Your task to perform on an android device: change text size in settings app Image 0: 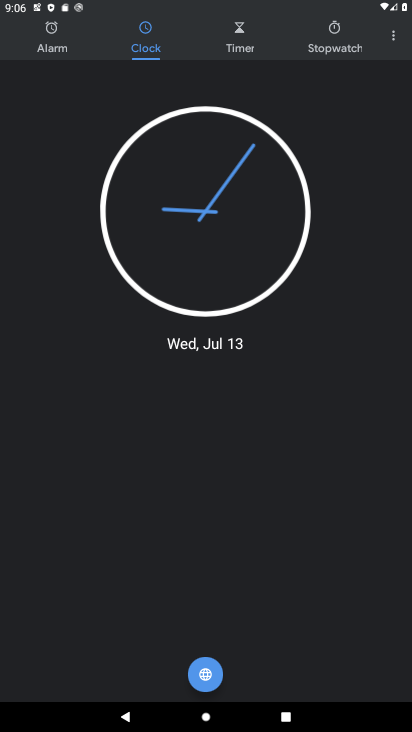
Step 0: press home button
Your task to perform on an android device: change text size in settings app Image 1: 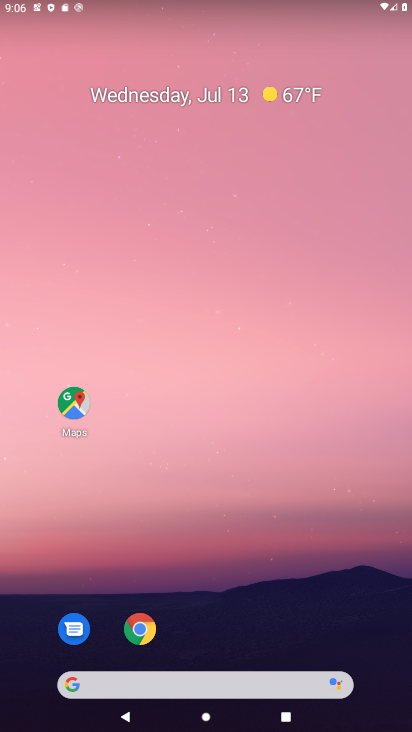
Step 1: drag from (234, 598) to (340, 7)
Your task to perform on an android device: change text size in settings app Image 2: 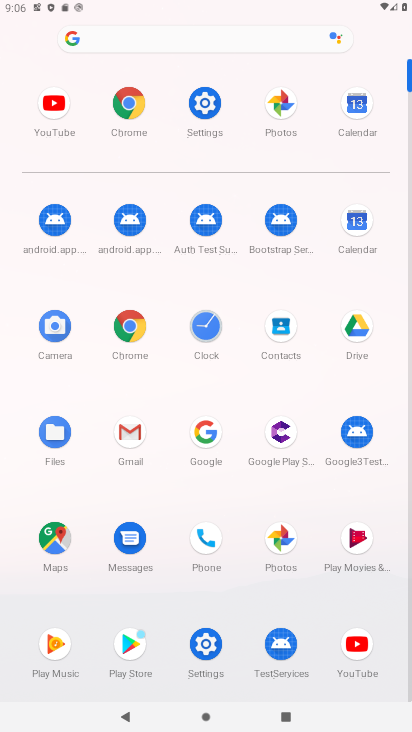
Step 2: click (212, 654)
Your task to perform on an android device: change text size in settings app Image 3: 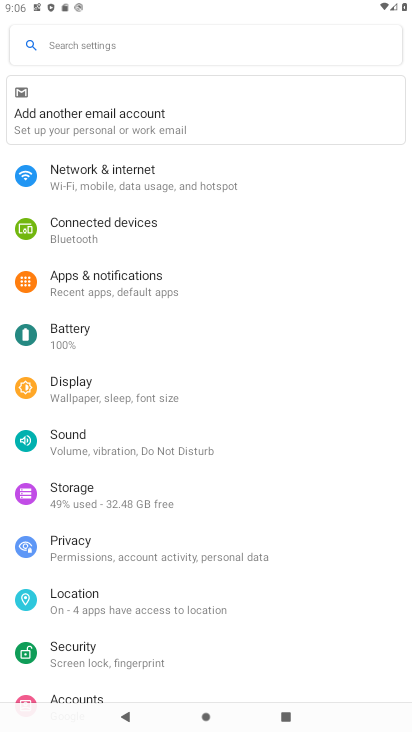
Step 3: click (97, 392)
Your task to perform on an android device: change text size in settings app Image 4: 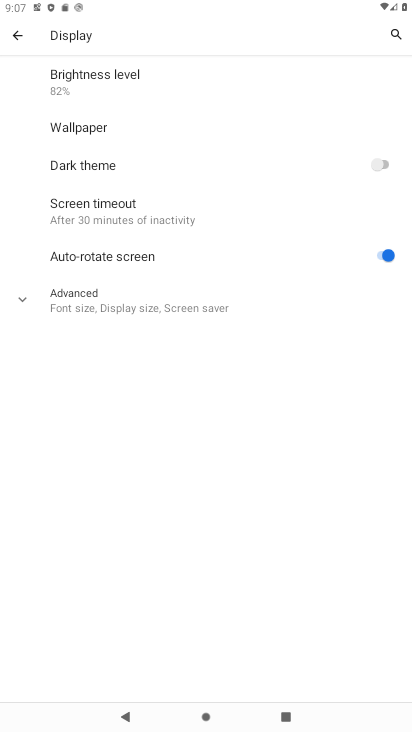
Step 4: click (91, 300)
Your task to perform on an android device: change text size in settings app Image 5: 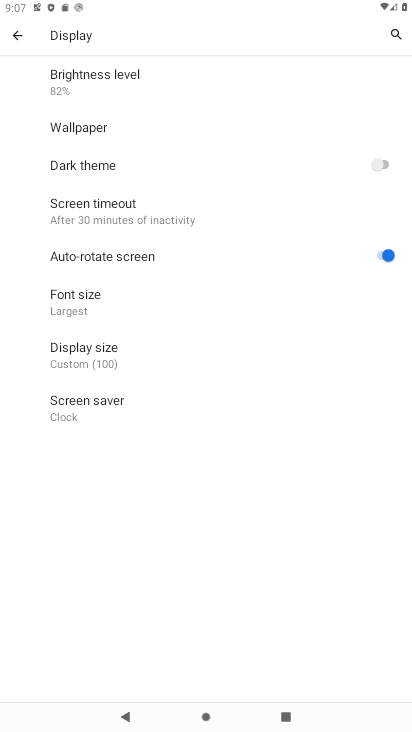
Step 5: click (93, 298)
Your task to perform on an android device: change text size in settings app Image 6: 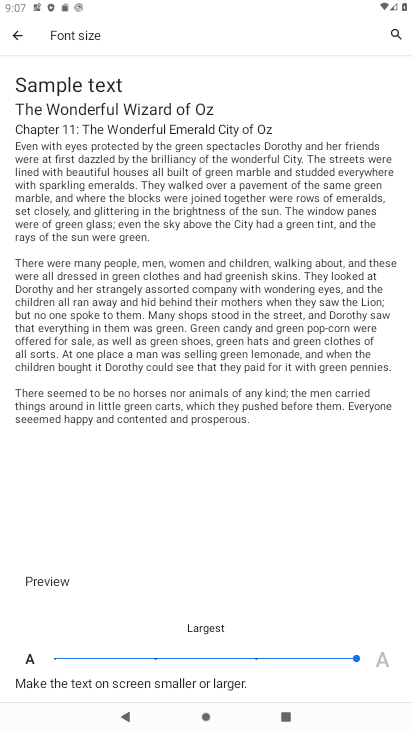
Step 6: click (307, 657)
Your task to perform on an android device: change text size in settings app Image 7: 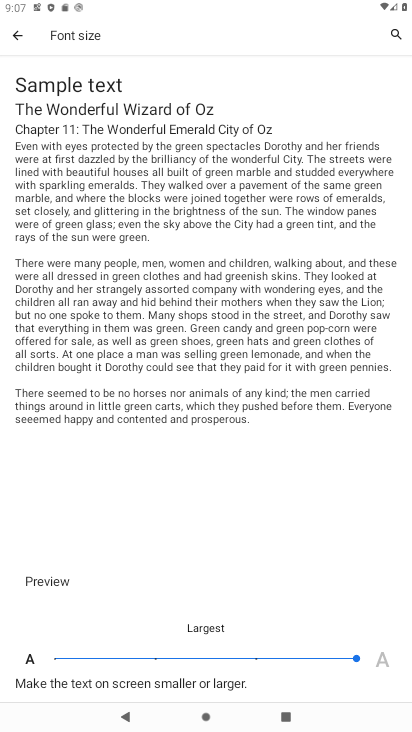
Step 7: click (257, 659)
Your task to perform on an android device: change text size in settings app Image 8: 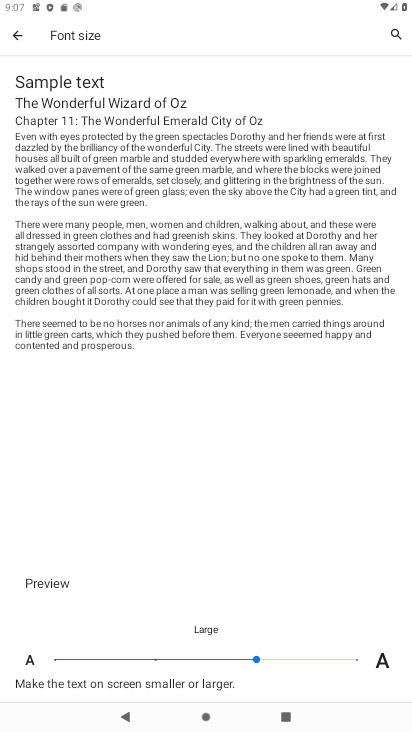
Step 8: task complete